Your task to perform on an android device: Go to battery settings Image 0: 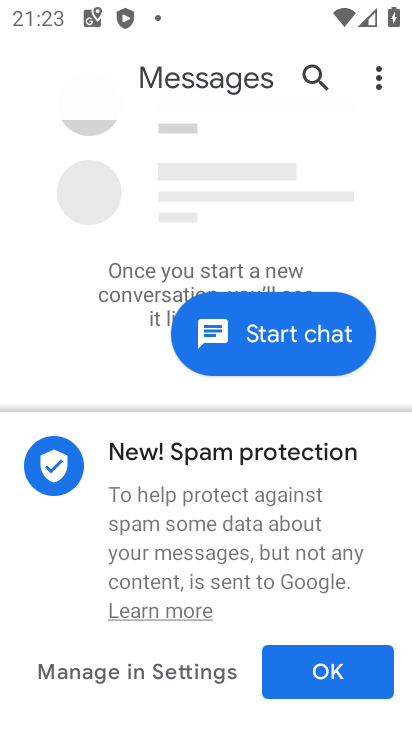
Step 0: press home button
Your task to perform on an android device: Go to battery settings Image 1: 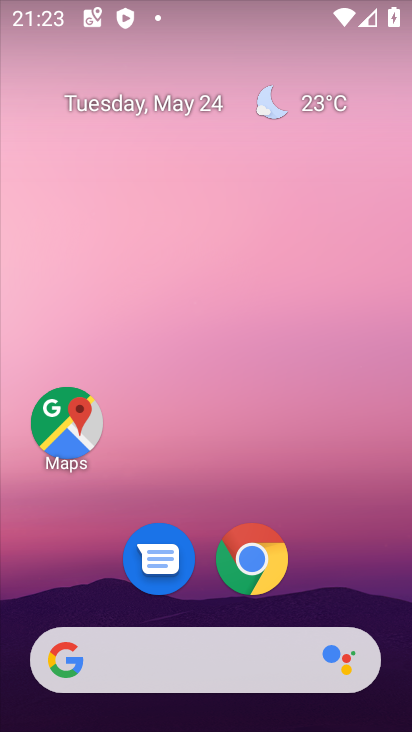
Step 1: drag from (349, 509) to (308, 143)
Your task to perform on an android device: Go to battery settings Image 2: 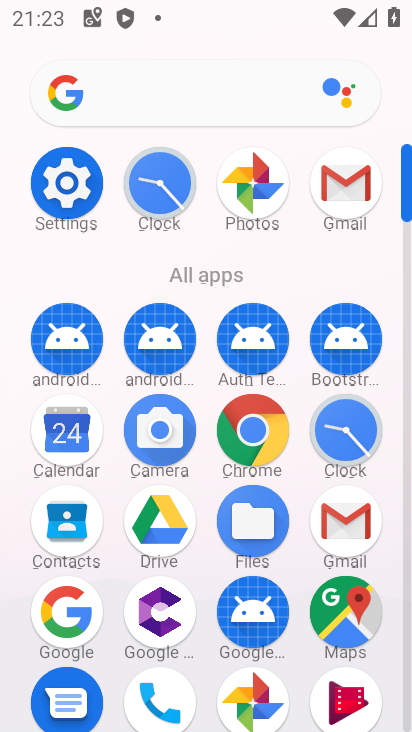
Step 2: click (50, 174)
Your task to perform on an android device: Go to battery settings Image 3: 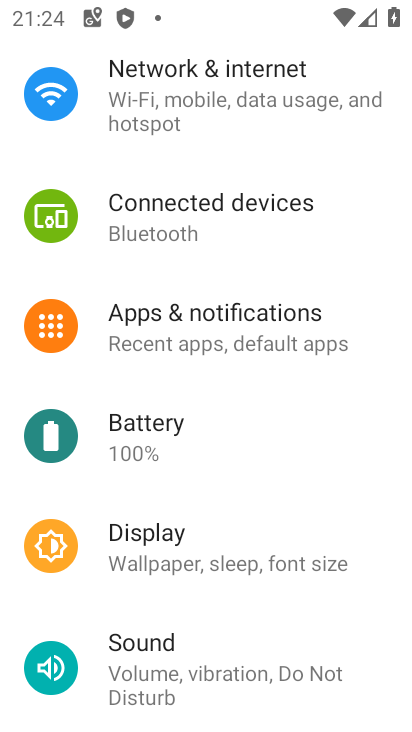
Step 3: drag from (279, 254) to (297, 189)
Your task to perform on an android device: Go to battery settings Image 4: 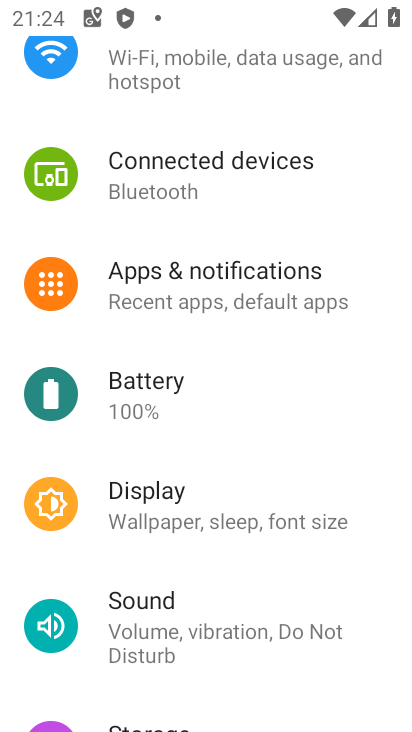
Step 4: click (142, 403)
Your task to perform on an android device: Go to battery settings Image 5: 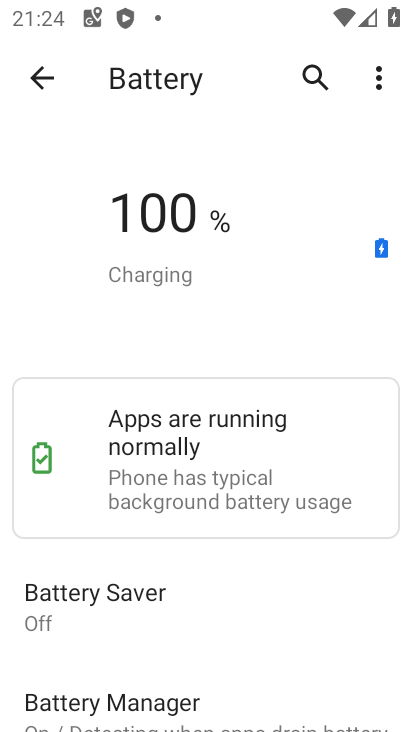
Step 5: task complete